Your task to perform on an android device: open app "Mercado Libre" (install if not already installed), go to login, and select forgot password Image 0: 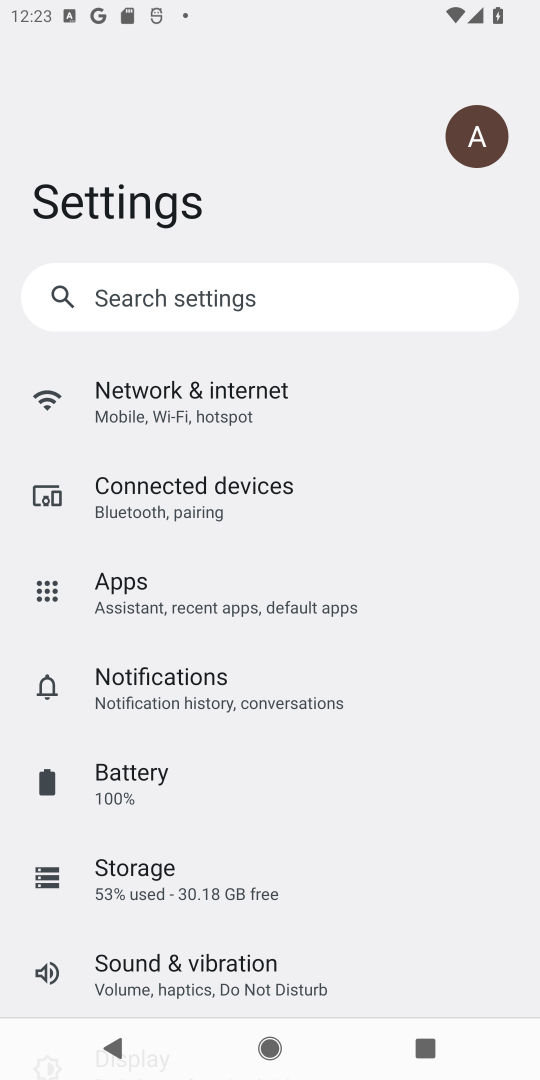
Step 0: press back button
Your task to perform on an android device: open app "Mercado Libre" (install if not already installed), go to login, and select forgot password Image 1: 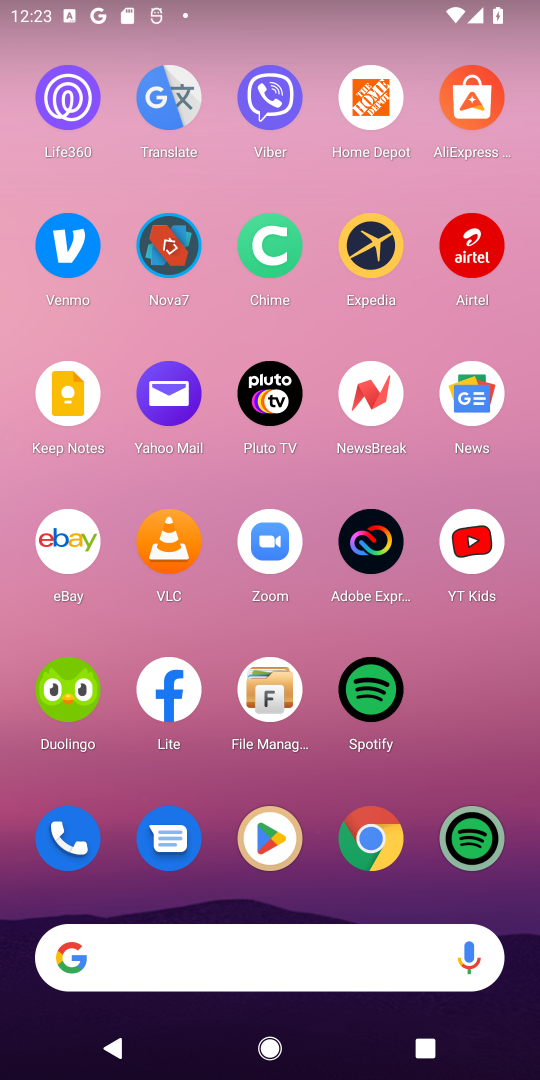
Step 1: press back button
Your task to perform on an android device: open app "Mercado Libre" (install if not already installed), go to login, and select forgot password Image 2: 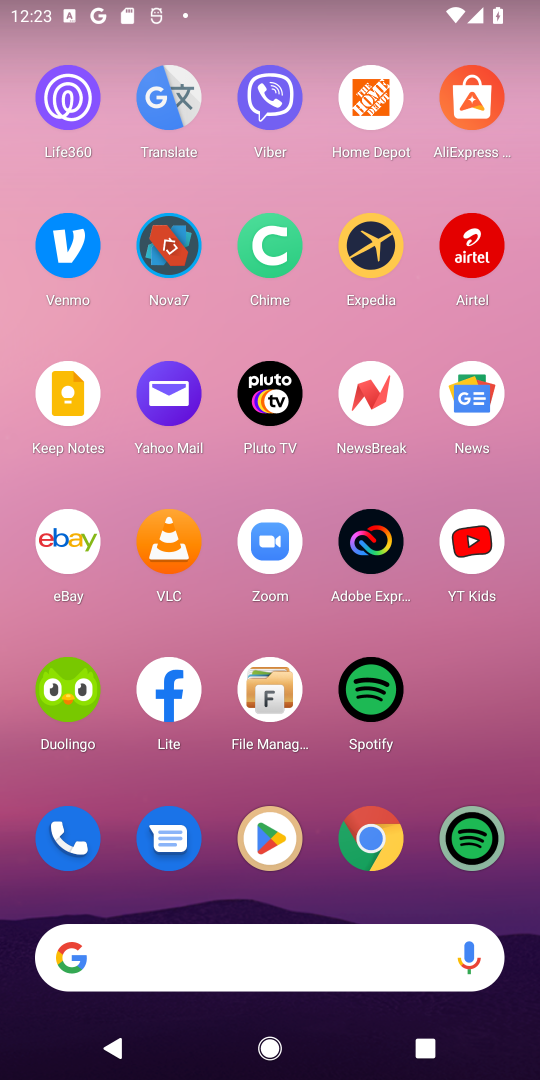
Step 2: press back button
Your task to perform on an android device: open app "Mercado Libre" (install if not already installed), go to login, and select forgot password Image 3: 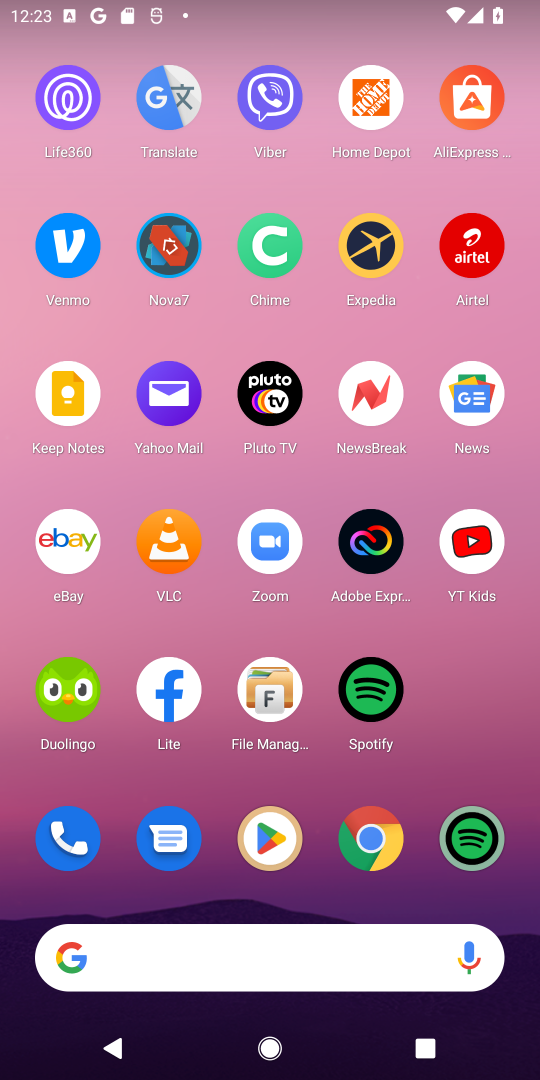
Step 3: press back button
Your task to perform on an android device: open app "Mercado Libre" (install if not already installed), go to login, and select forgot password Image 4: 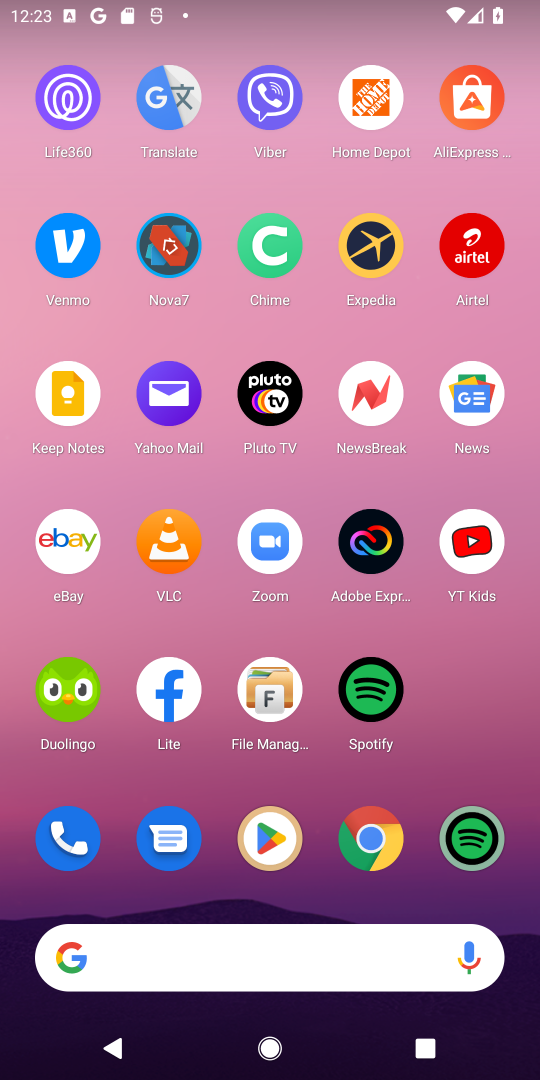
Step 4: click (277, 848)
Your task to perform on an android device: open app "Mercado Libre" (install if not already installed), go to login, and select forgot password Image 5: 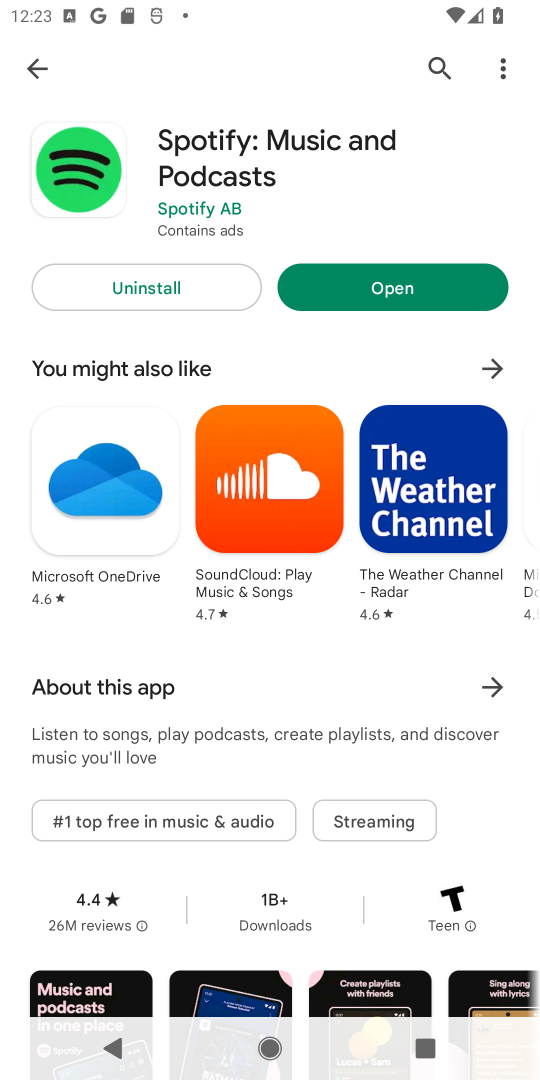
Step 5: click (472, 58)
Your task to perform on an android device: open app "Mercado Libre" (install if not already installed), go to login, and select forgot password Image 6: 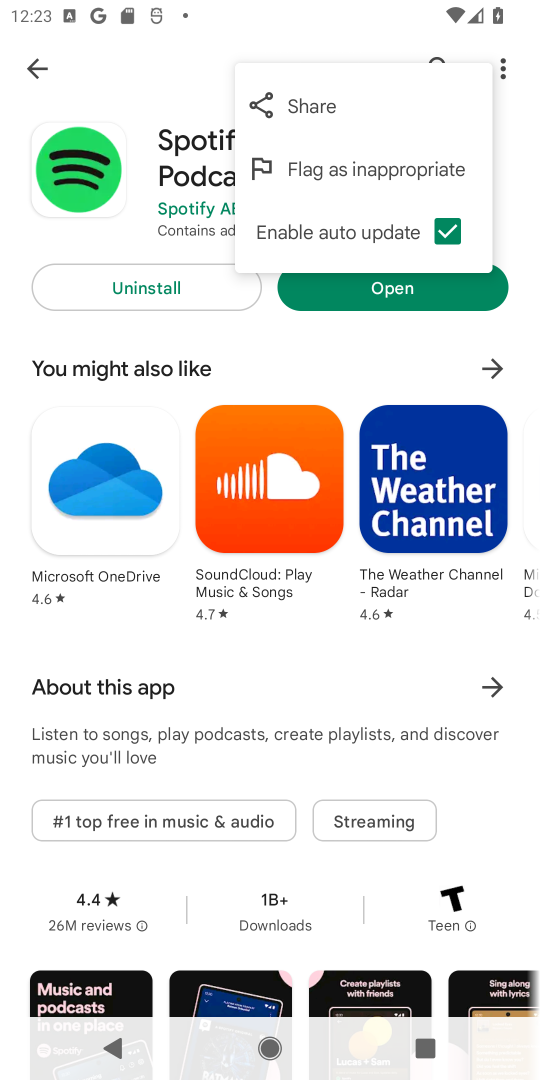
Step 6: click (156, 77)
Your task to perform on an android device: open app "Mercado Libre" (install if not already installed), go to login, and select forgot password Image 7: 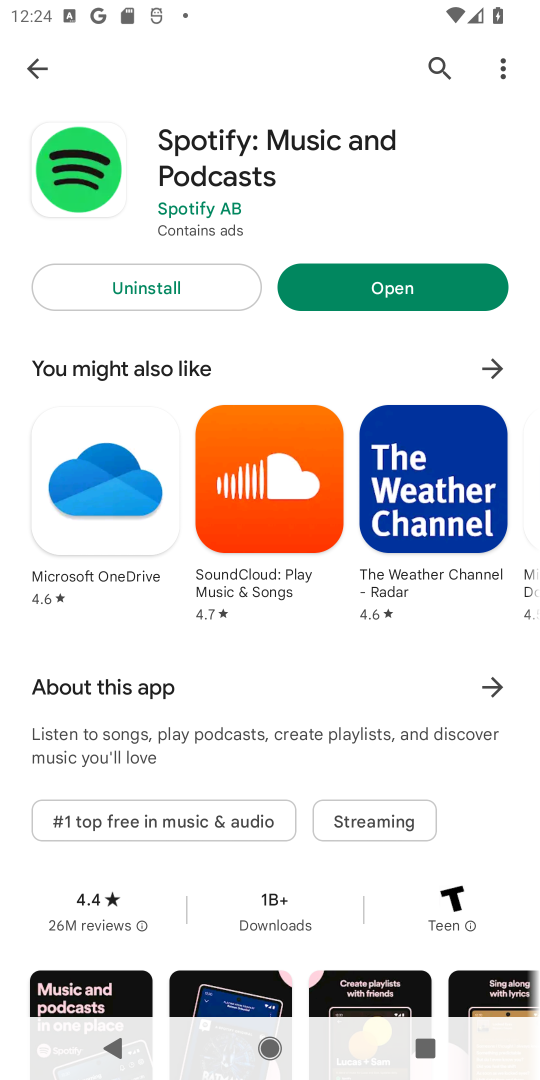
Step 7: click (432, 71)
Your task to perform on an android device: open app "Mercado Libre" (install if not already installed), go to login, and select forgot password Image 8: 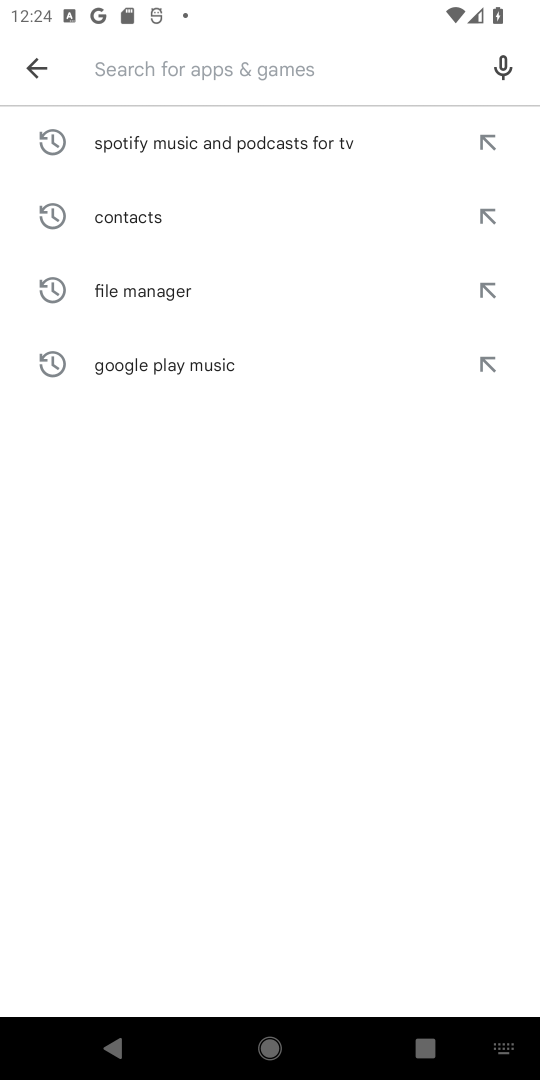
Step 8: type "Mercado Libre"
Your task to perform on an android device: open app "Mercado Libre" (install if not already installed), go to login, and select forgot password Image 9: 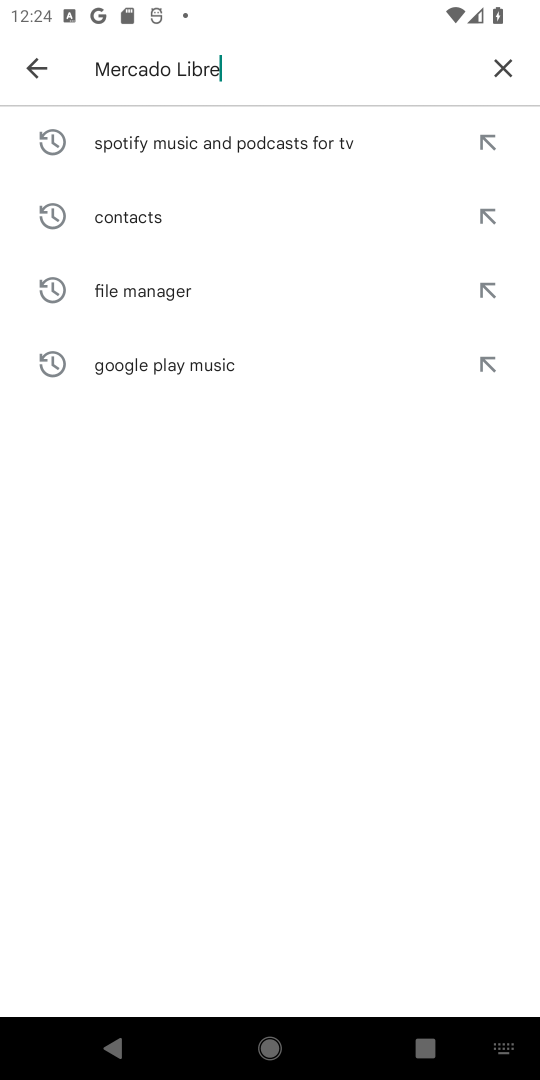
Step 9: type ""
Your task to perform on an android device: open app "Mercado Libre" (install if not already installed), go to login, and select forgot password Image 10: 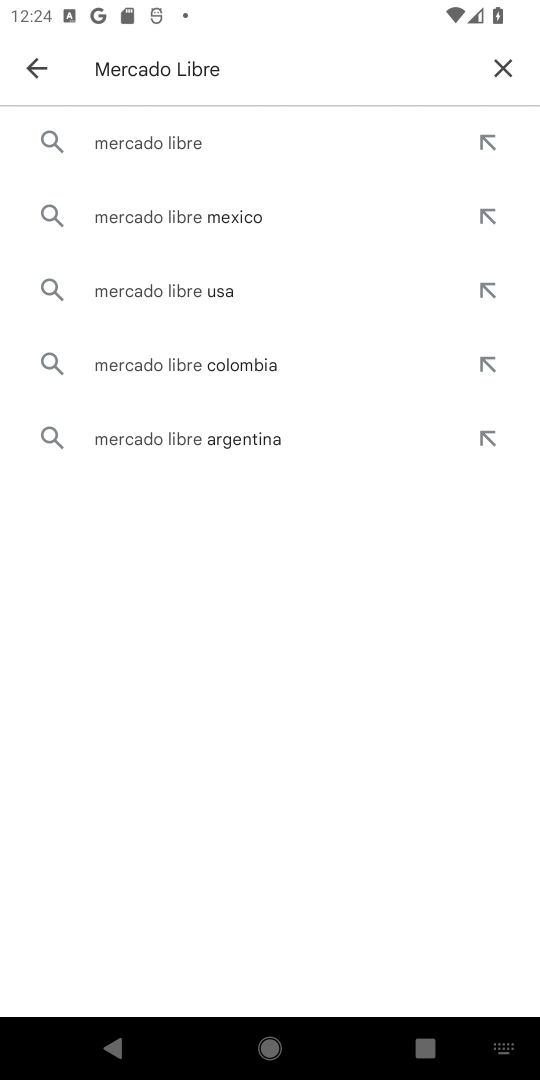
Step 10: click (169, 143)
Your task to perform on an android device: open app "Mercado Libre" (install if not already installed), go to login, and select forgot password Image 11: 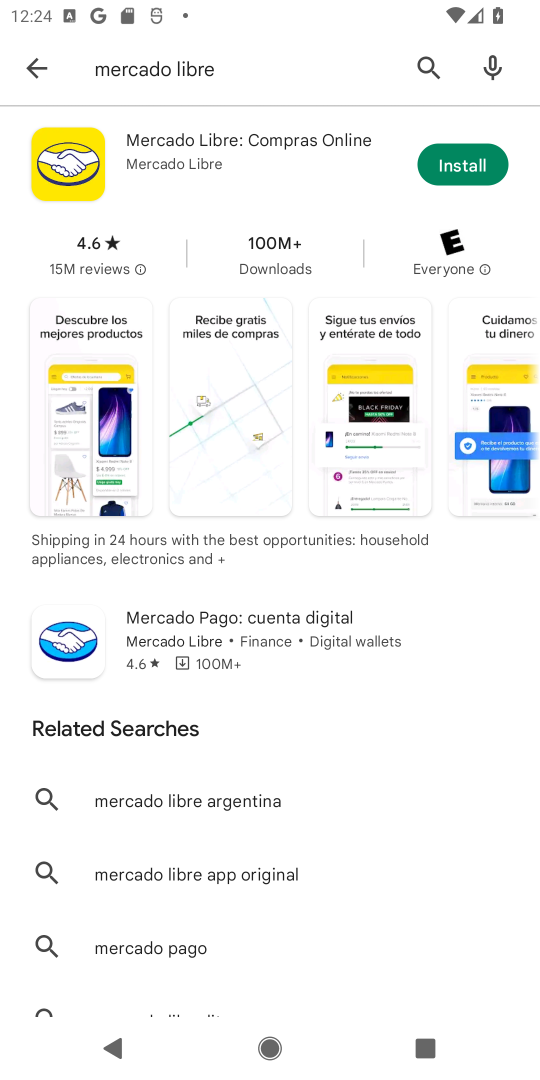
Step 11: click (478, 155)
Your task to perform on an android device: open app "Mercado Libre" (install if not already installed), go to login, and select forgot password Image 12: 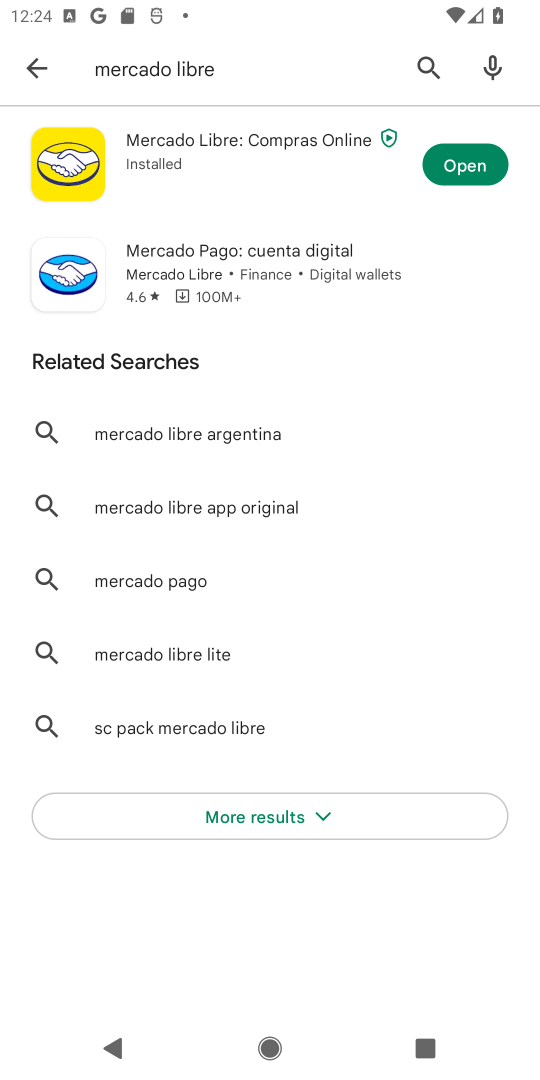
Step 12: click (469, 170)
Your task to perform on an android device: open app "Mercado Libre" (install if not already installed), go to login, and select forgot password Image 13: 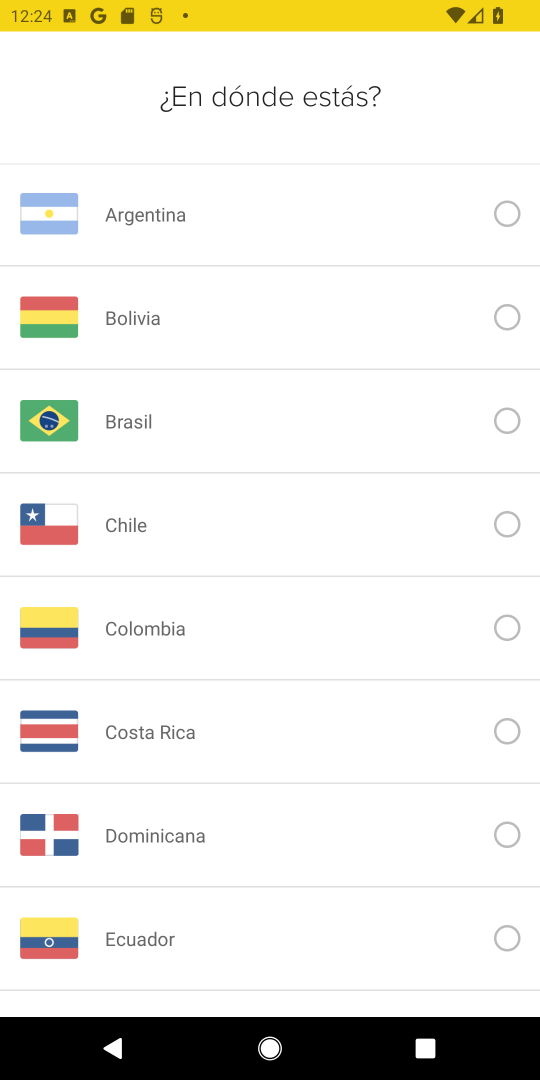
Step 13: task complete